Your task to perform on an android device: stop showing notifications on the lock screen Image 0: 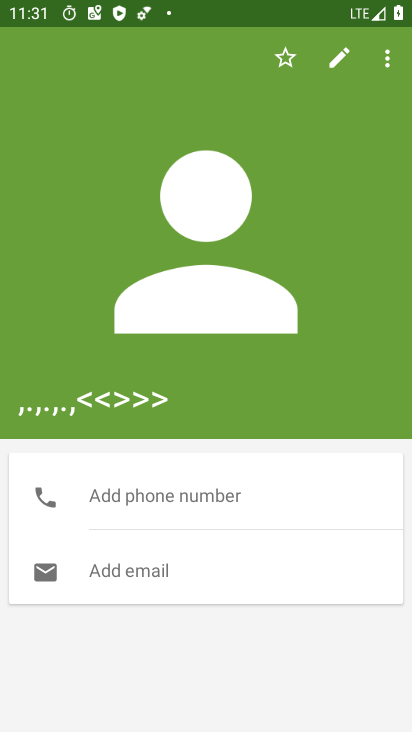
Step 0: press home button
Your task to perform on an android device: stop showing notifications on the lock screen Image 1: 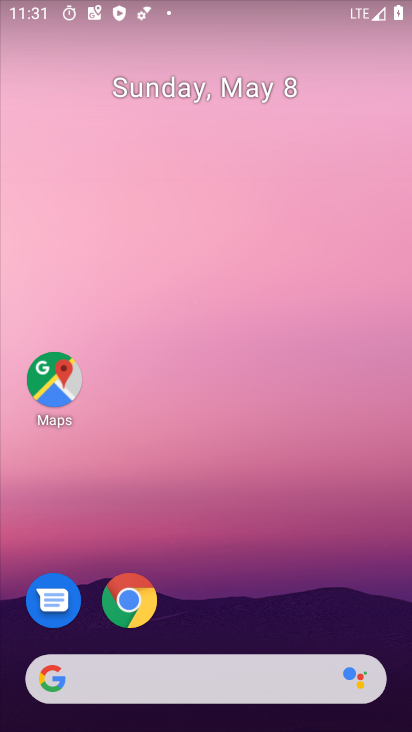
Step 1: drag from (336, 535) to (312, 138)
Your task to perform on an android device: stop showing notifications on the lock screen Image 2: 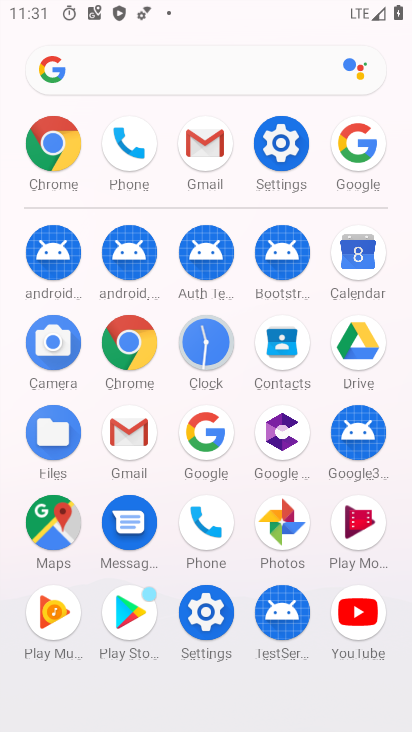
Step 2: click (285, 154)
Your task to perform on an android device: stop showing notifications on the lock screen Image 3: 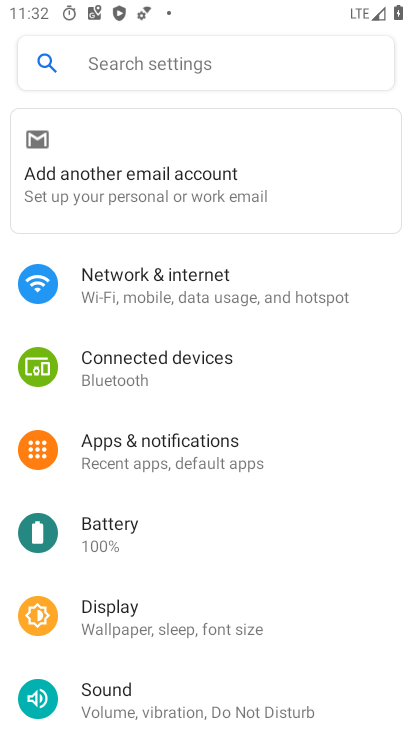
Step 3: drag from (207, 559) to (197, 253)
Your task to perform on an android device: stop showing notifications on the lock screen Image 4: 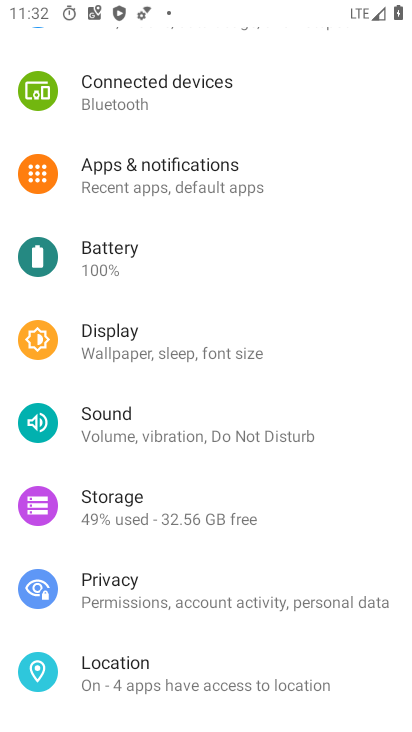
Step 4: drag from (205, 570) to (193, 398)
Your task to perform on an android device: stop showing notifications on the lock screen Image 5: 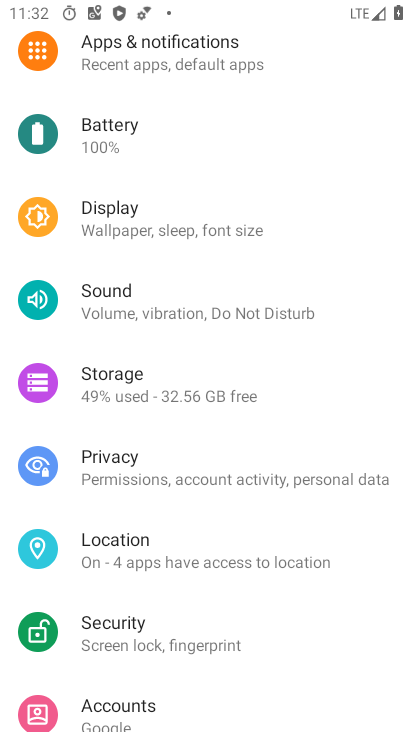
Step 5: click (274, 87)
Your task to perform on an android device: stop showing notifications on the lock screen Image 6: 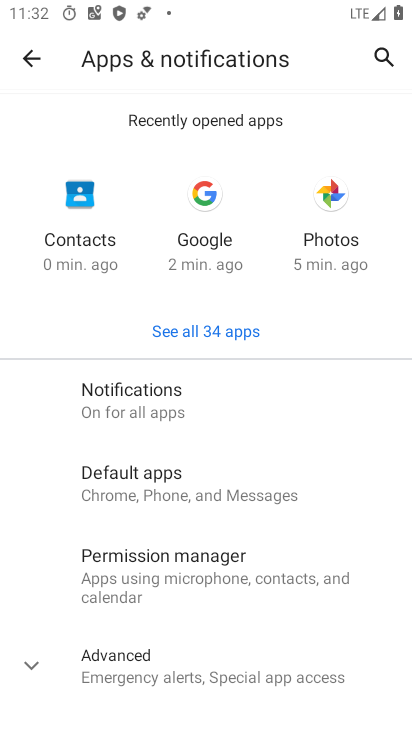
Step 6: click (222, 404)
Your task to perform on an android device: stop showing notifications on the lock screen Image 7: 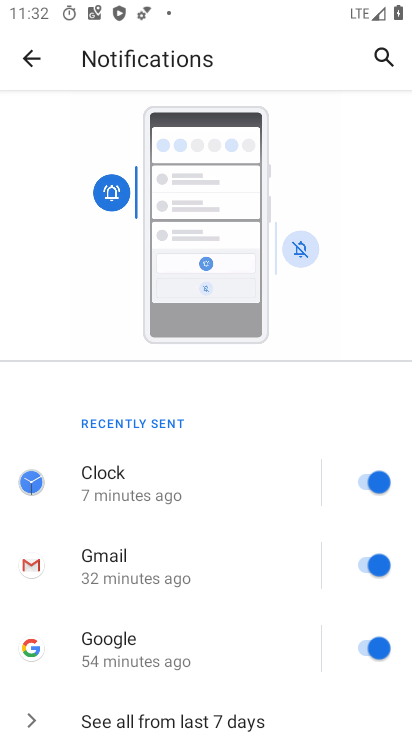
Step 7: drag from (217, 517) to (264, 163)
Your task to perform on an android device: stop showing notifications on the lock screen Image 8: 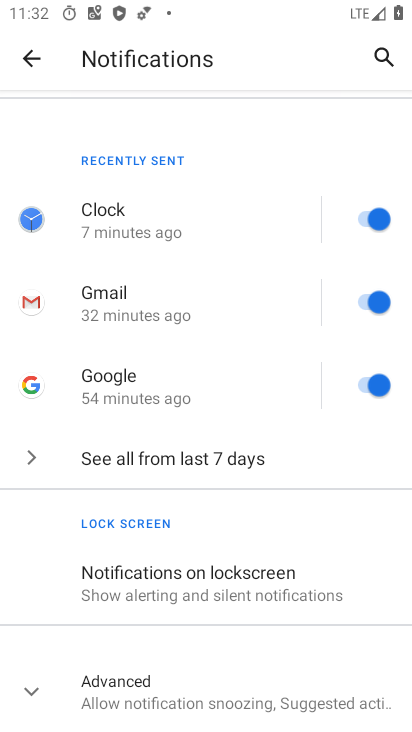
Step 8: click (207, 572)
Your task to perform on an android device: stop showing notifications on the lock screen Image 9: 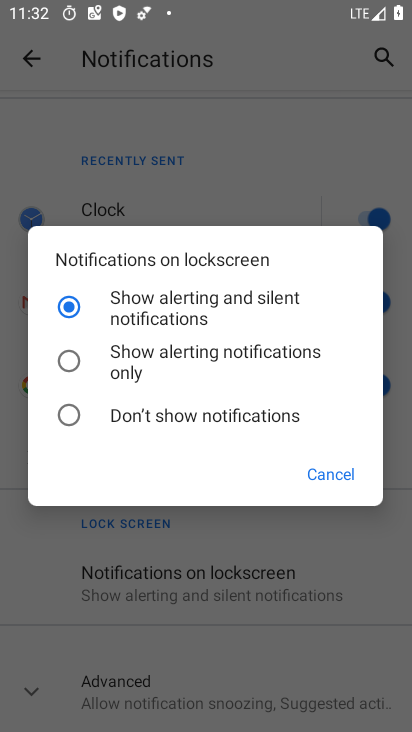
Step 9: click (207, 420)
Your task to perform on an android device: stop showing notifications on the lock screen Image 10: 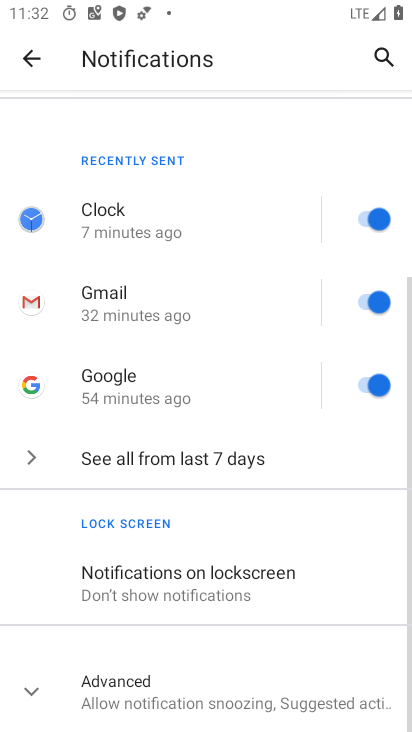
Step 10: task complete